Your task to perform on an android device: check data usage Image 0: 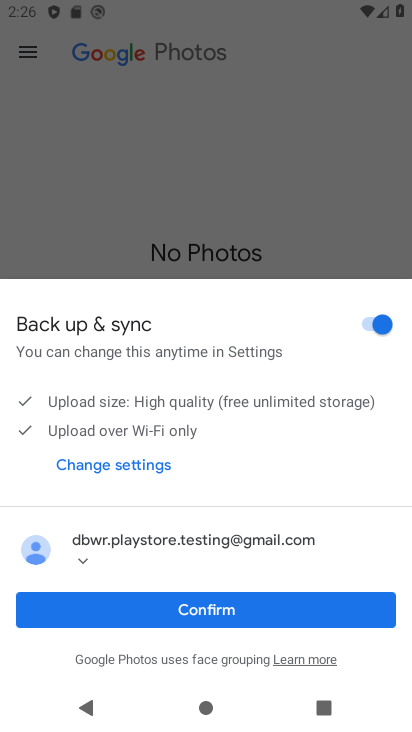
Step 0: press back button
Your task to perform on an android device: check data usage Image 1: 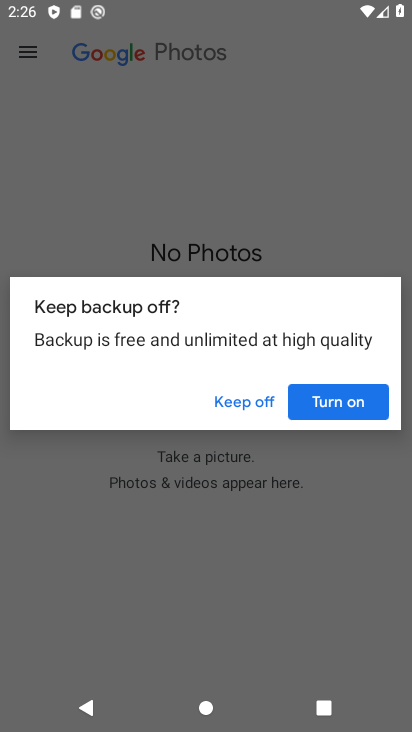
Step 1: press back button
Your task to perform on an android device: check data usage Image 2: 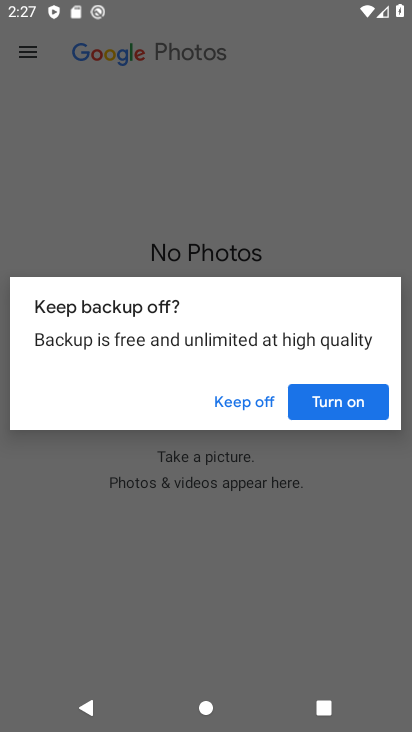
Step 2: press home button
Your task to perform on an android device: check data usage Image 3: 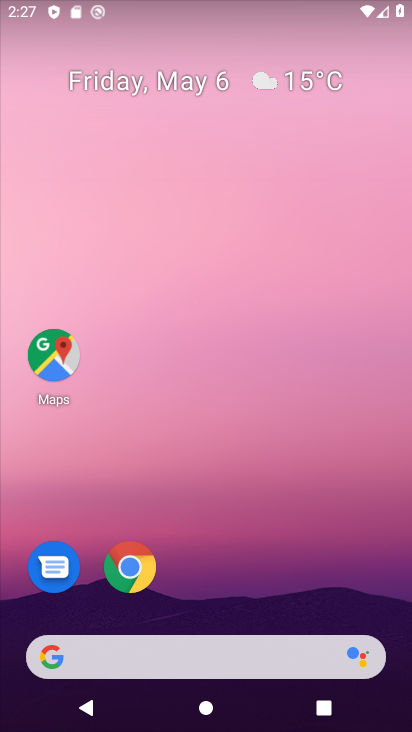
Step 3: drag from (171, 650) to (264, 77)
Your task to perform on an android device: check data usage Image 4: 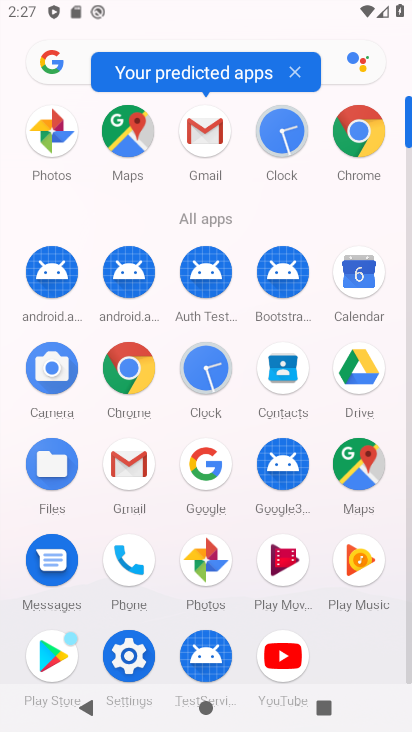
Step 4: click (125, 663)
Your task to perform on an android device: check data usage Image 5: 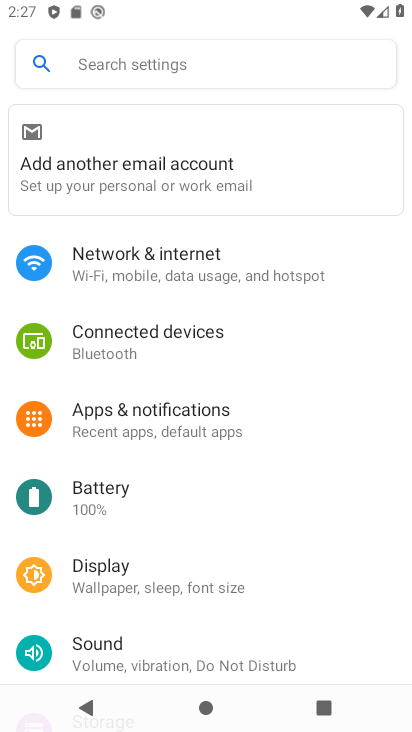
Step 5: click (212, 273)
Your task to perform on an android device: check data usage Image 6: 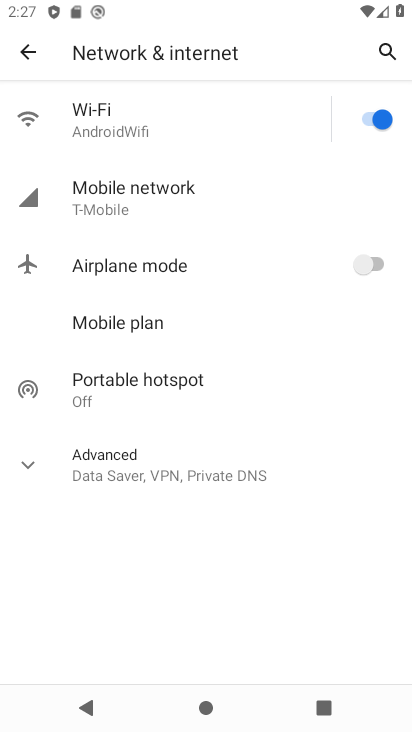
Step 6: click (162, 197)
Your task to perform on an android device: check data usage Image 7: 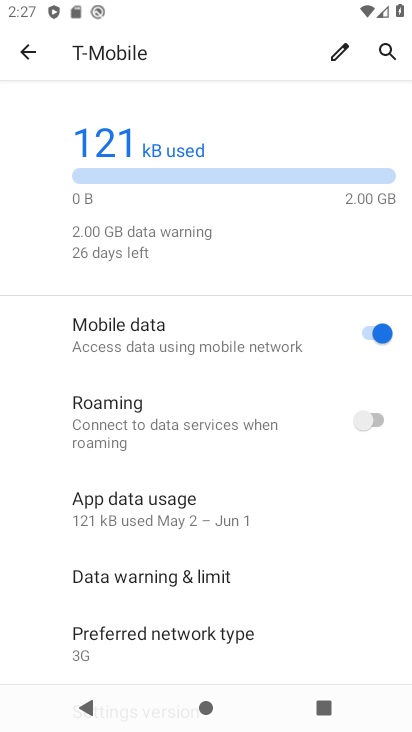
Step 7: click (231, 511)
Your task to perform on an android device: check data usage Image 8: 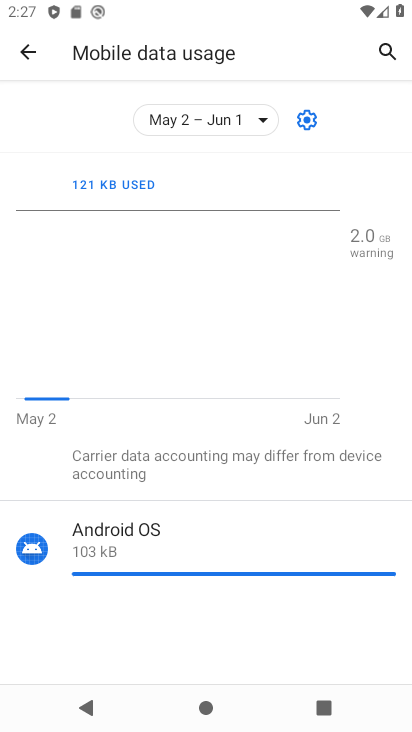
Step 8: task complete